Your task to perform on an android device: Open network settings Image 0: 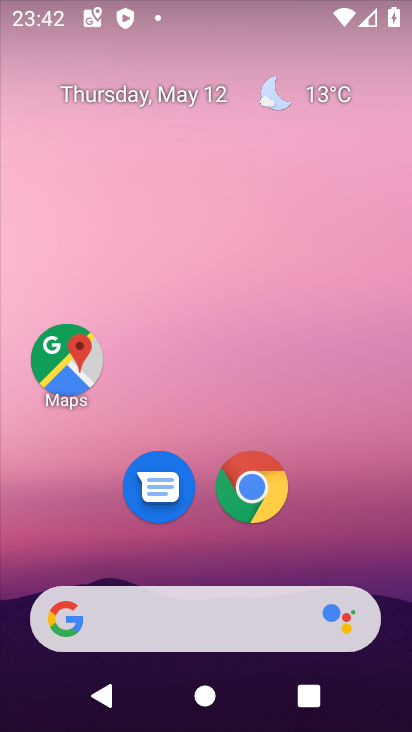
Step 0: drag from (181, 559) to (357, 15)
Your task to perform on an android device: Open network settings Image 1: 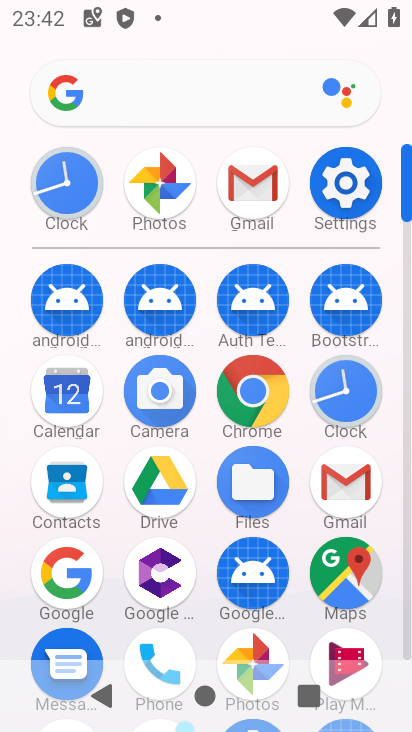
Step 1: click (363, 196)
Your task to perform on an android device: Open network settings Image 2: 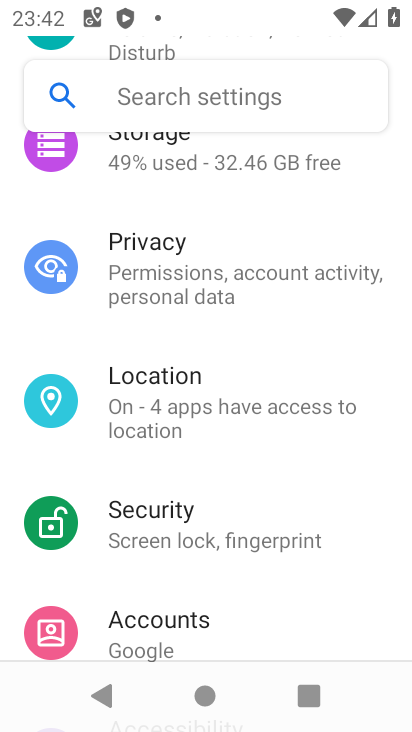
Step 2: drag from (286, 229) to (307, 539)
Your task to perform on an android device: Open network settings Image 3: 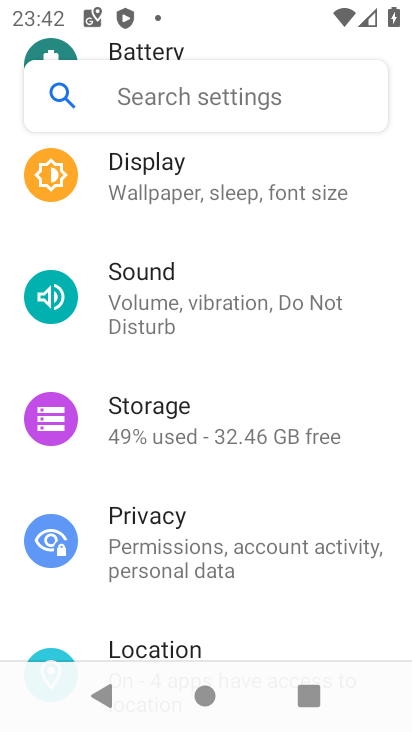
Step 3: drag from (247, 219) to (216, 674)
Your task to perform on an android device: Open network settings Image 4: 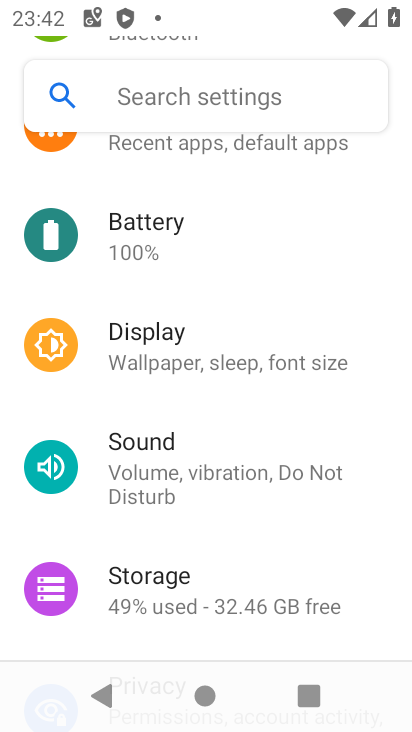
Step 4: drag from (284, 209) to (201, 691)
Your task to perform on an android device: Open network settings Image 5: 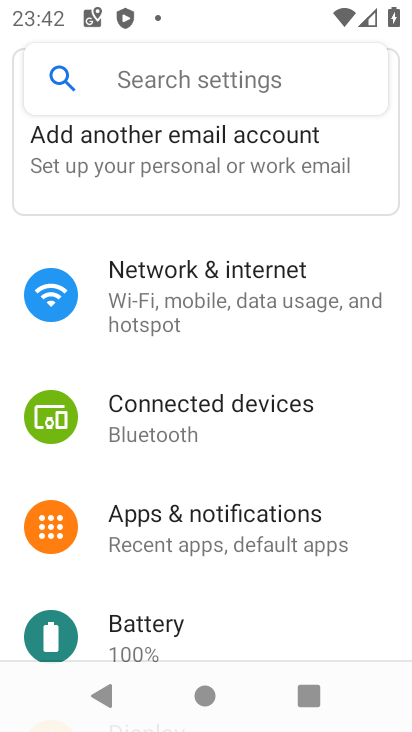
Step 5: click (217, 325)
Your task to perform on an android device: Open network settings Image 6: 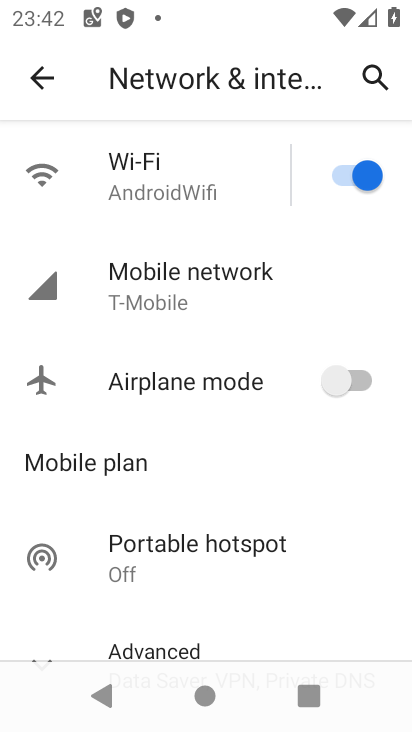
Step 6: task complete